Your task to perform on an android device: Show me recent news Image 0: 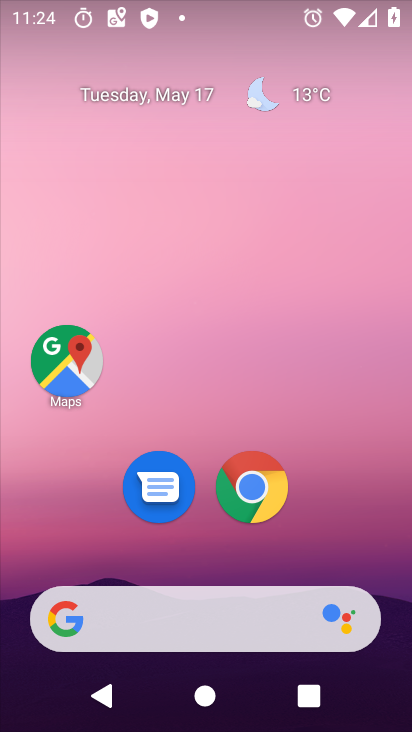
Step 0: drag from (238, 721) to (210, 283)
Your task to perform on an android device: Show me recent news Image 1: 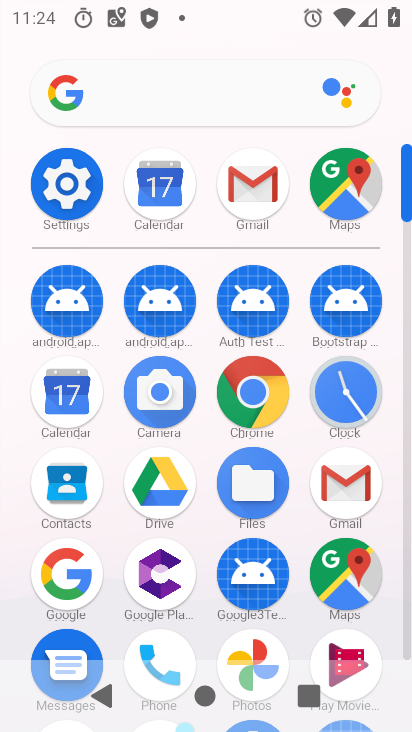
Step 1: click (79, 571)
Your task to perform on an android device: Show me recent news Image 2: 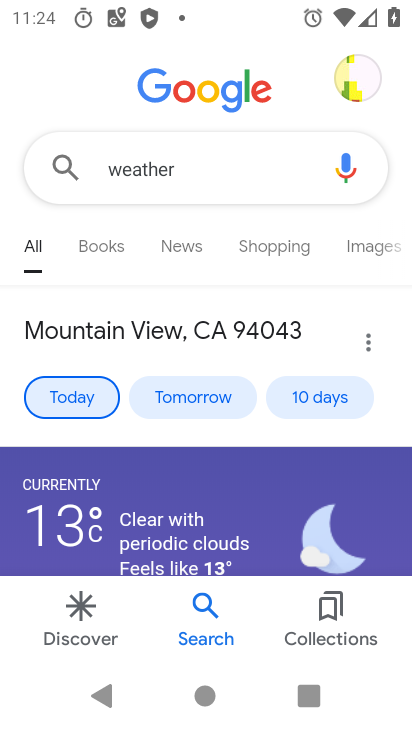
Step 2: click (175, 247)
Your task to perform on an android device: Show me recent news Image 3: 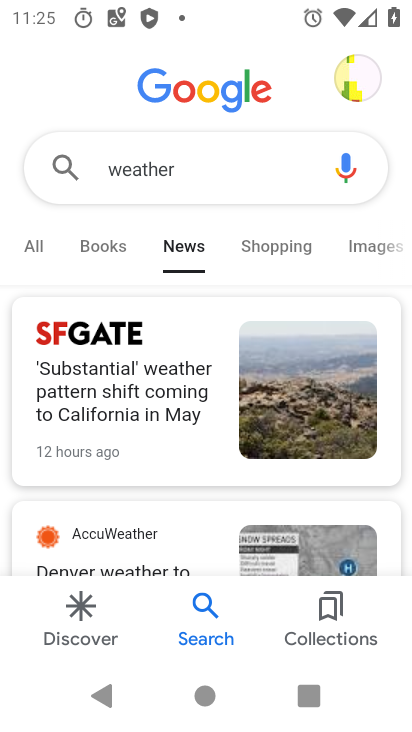
Step 3: task complete